Your task to perform on an android device: toggle show notifications on the lock screen Image 0: 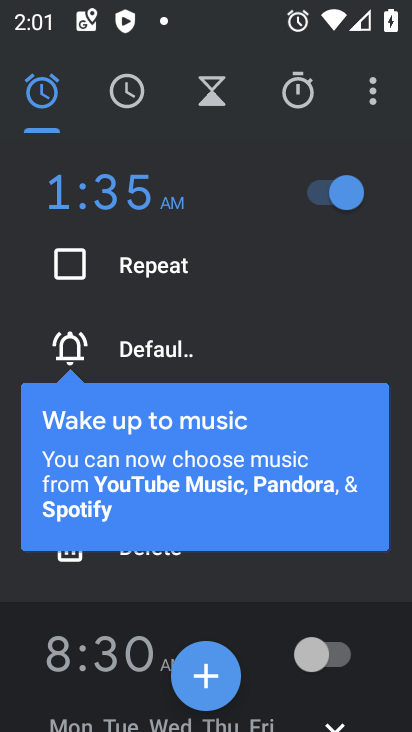
Step 0: press home button
Your task to perform on an android device: toggle show notifications on the lock screen Image 1: 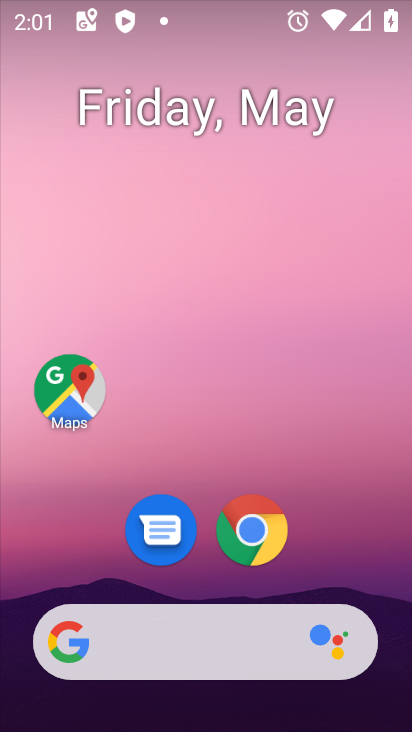
Step 1: drag from (298, 589) to (274, 2)
Your task to perform on an android device: toggle show notifications on the lock screen Image 2: 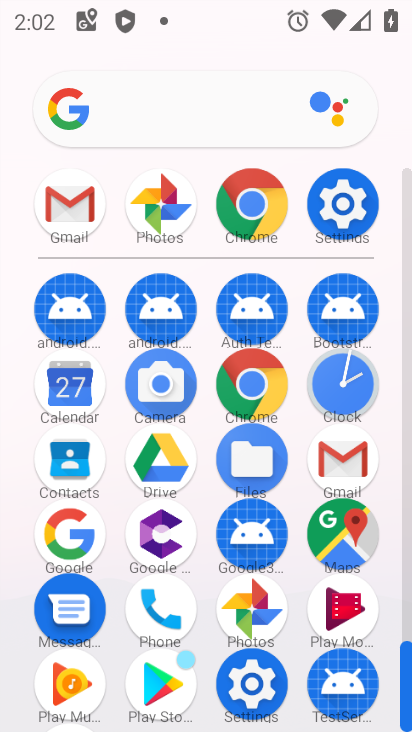
Step 2: click (336, 193)
Your task to perform on an android device: toggle show notifications on the lock screen Image 3: 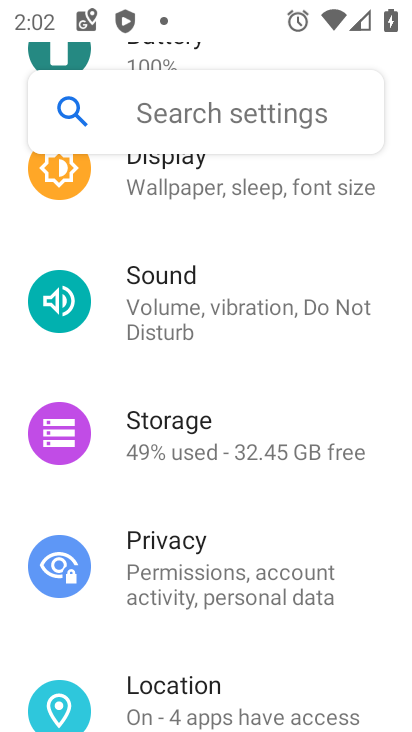
Step 3: drag from (182, 307) to (203, 713)
Your task to perform on an android device: toggle show notifications on the lock screen Image 4: 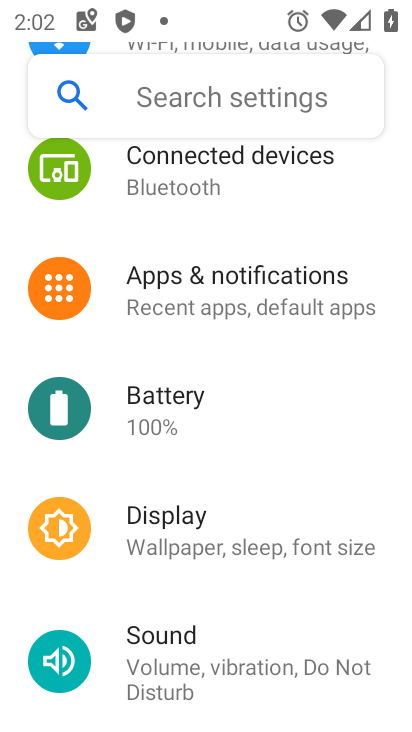
Step 4: click (215, 299)
Your task to perform on an android device: toggle show notifications on the lock screen Image 5: 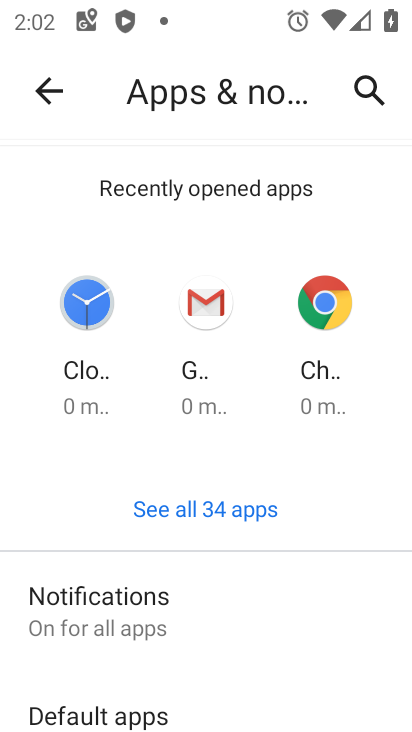
Step 5: click (130, 589)
Your task to perform on an android device: toggle show notifications on the lock screen Image 6: 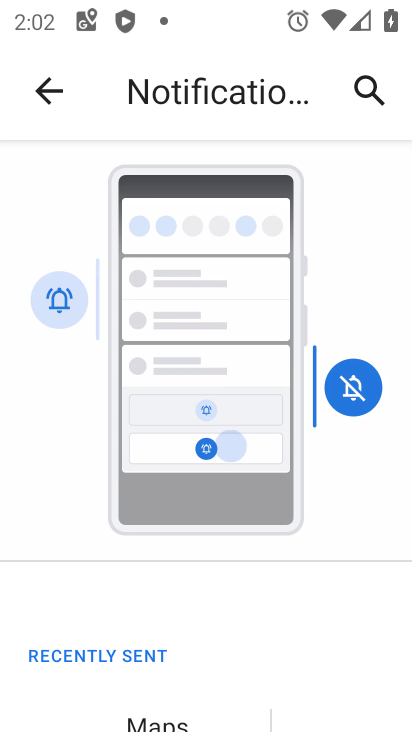
Step 6: drag from (113, 701) to (119, 188)
Your task to perform on an android device: toggle show notifications on the lock screen Image 7: 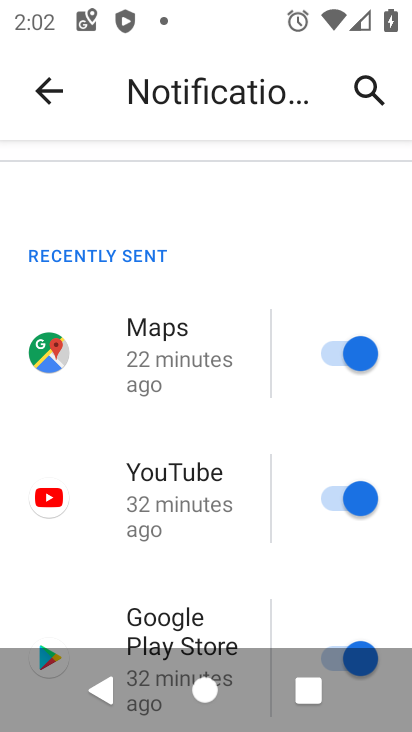
Step 7: drag from (230, 578) to (244, 111)
Your task to perform on an android device: toggle show notifications on the lock screen Image 8: 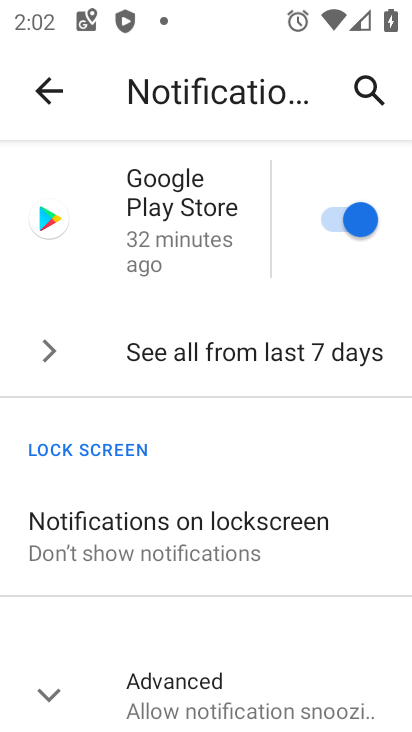
Step 8: click (185, 531)
Your task to perform on an android device: toggle show notifications on the lock screen Image 9: 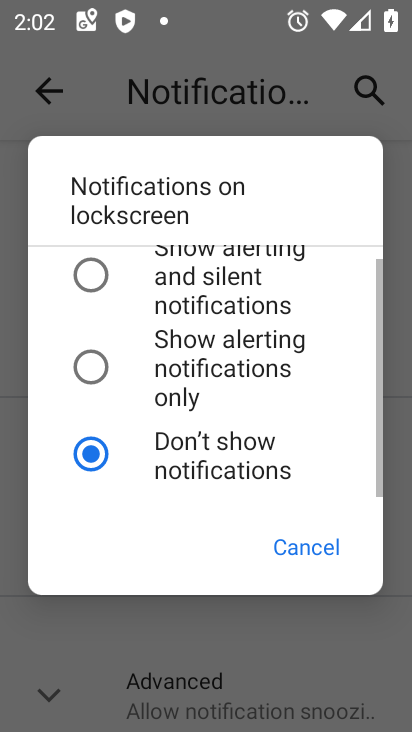
Step 9: click (175, 252)
Your task to perform on an android device: toggle show notifications on the lock screen Image 10: 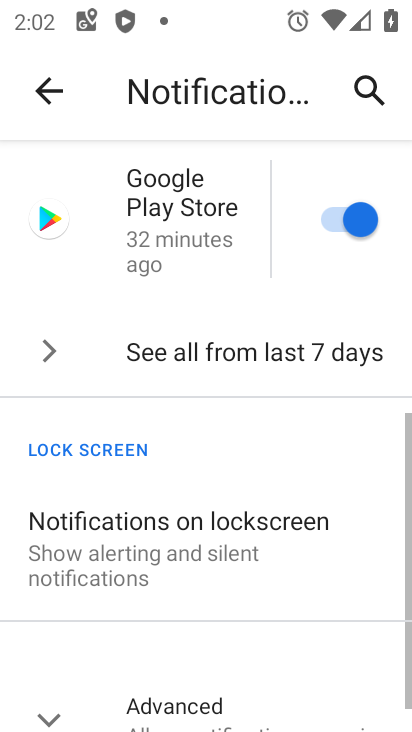
Step 10: task complete